Your task to perform on an android device: turn on translation in the chrome app Image 0: 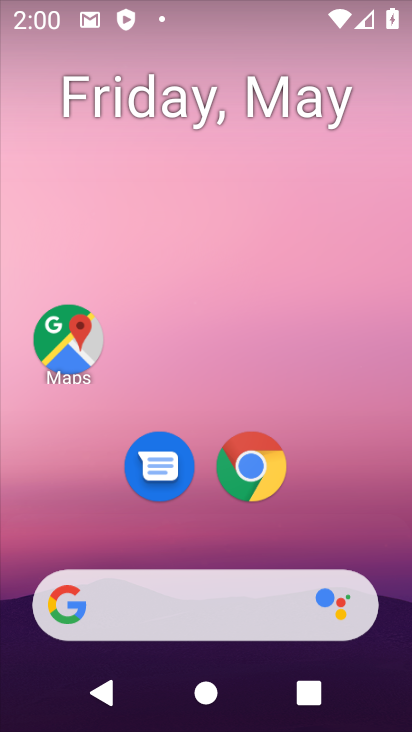
Step 0: click (266, 465)
Your task to perform on an android device: turn on translation in the chrome app Image 1: 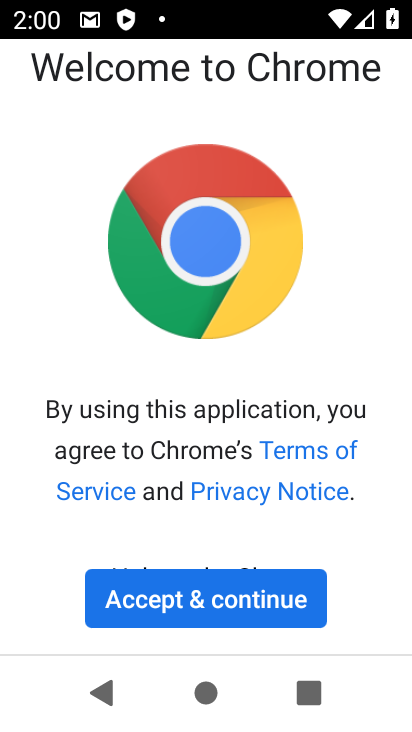
Step 1: click (223, 579)
Your task to perform on an android device: turn on translation in the chrome app Image 2: 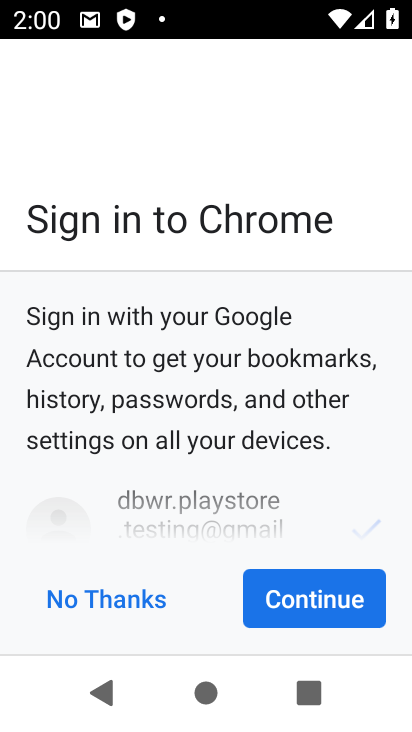
Step 2: click (322, 583)
Your task to perform on an android device: turn on translation in the chrome app Image 3: 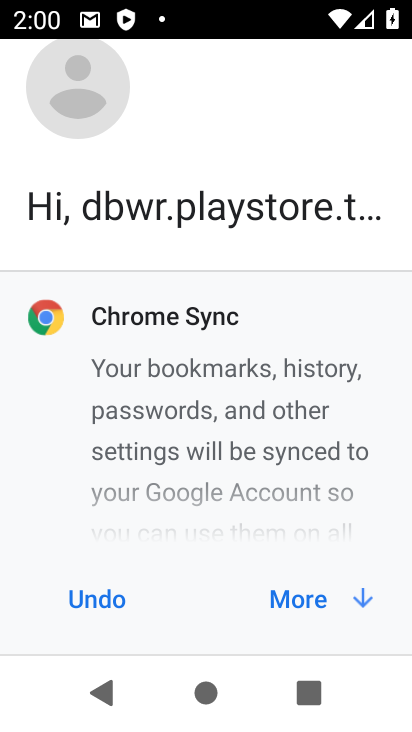
Step 3: click (296, 593)
Your task to perform on an android device: turn on translation in the chrome app Image 4: 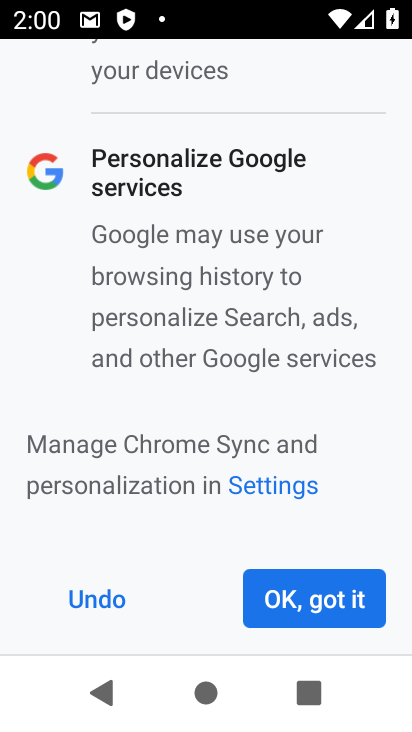
Step 4: click (304, 592)
Your task to perform on an android device: turn on translation in the chrome app Image 5: 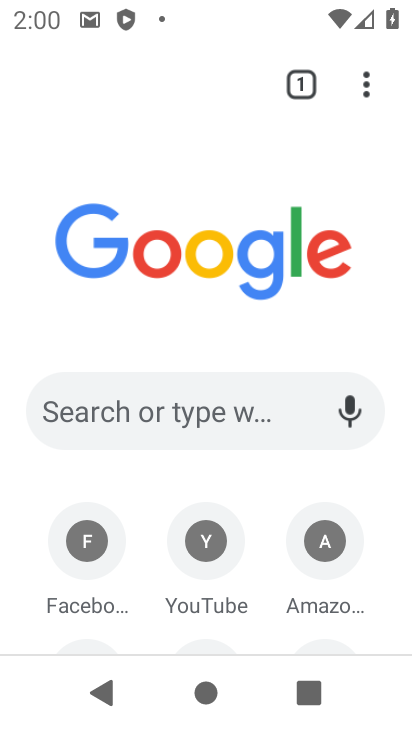
Step 5: drag from (363, 70) to (126, 520)
Your task to perform on an android device: turn on translation in the chrome app Image 6: 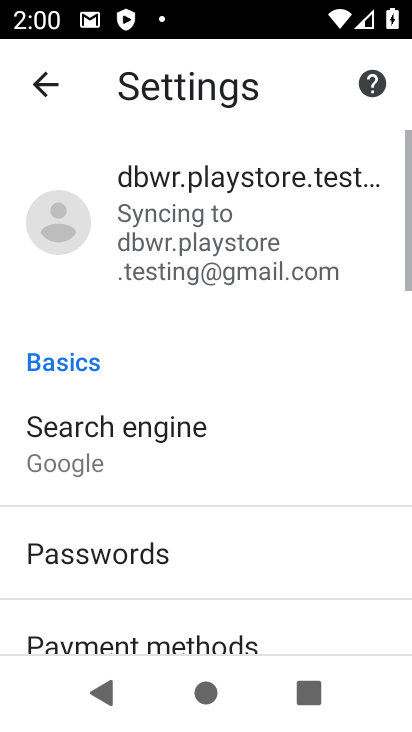
Step 6: drag from (129, 599) to (265, 45)
Your task to perform on an android device: turn on translation in the chrome app Image 7: 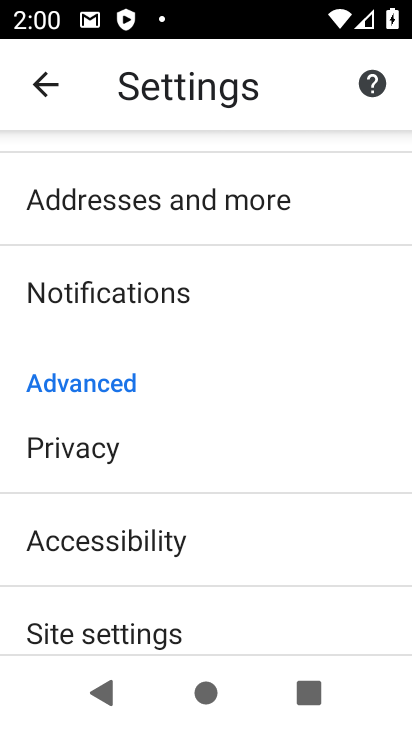
Step 7: drag from (113, 607) to (203, 346)
Your task to perform on an android device: turn on translation in the chrome app Image 8: 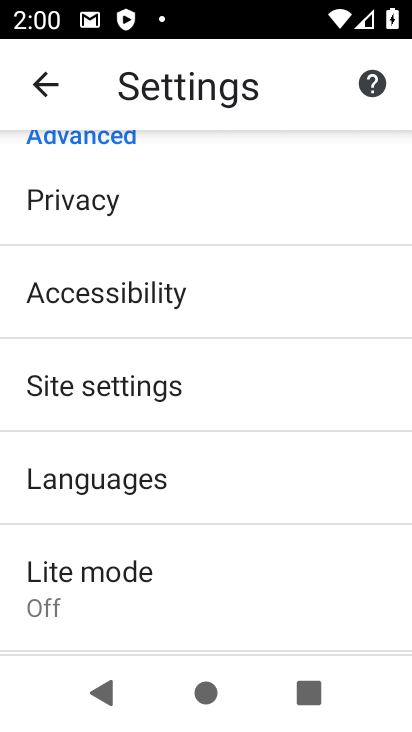
Step 8: click (123, 492)
Your task to perform on an android device: turn on translation in the chrome app Image 9: 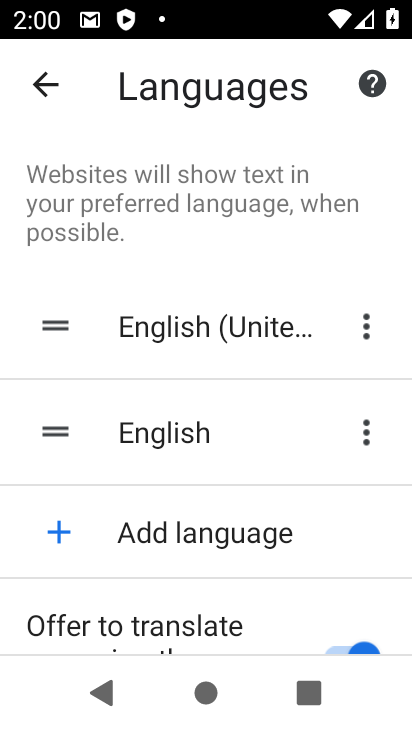
Step 9: task complete